Your task to perform on an android device: Clear the shopping cart on target. Search for "razer naga" on target, select the first entry, add it to the cart, then select checkout. Image 0: 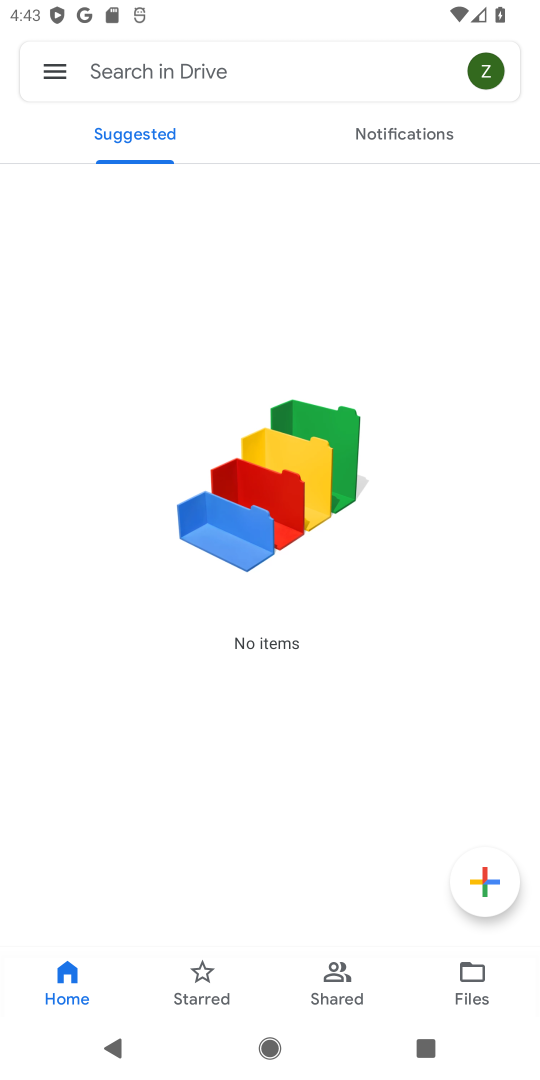
Step 0: press home button
Your task to perform on an android device: Clear the shopping cart on target. Search for "razer naga" on target, select the first entry, add it to the cart, then select checkout. Image 1: 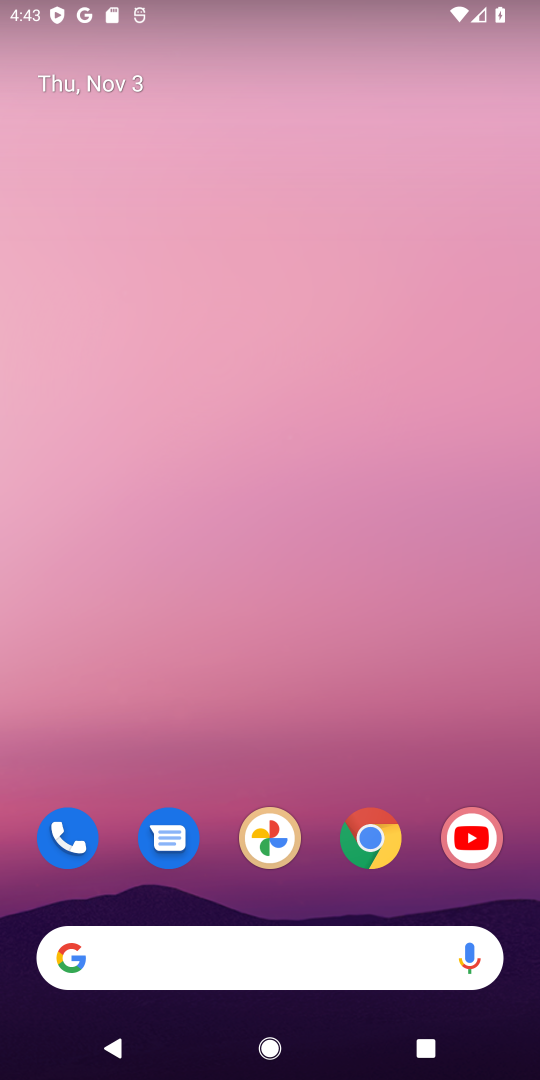
Step 1: click (369, 841)
Your task to perform on an android device: Clear the shopping cart on target. Search for "razer naga" on target, select the first entry, add it to the cart, then select checkout. Image 2: 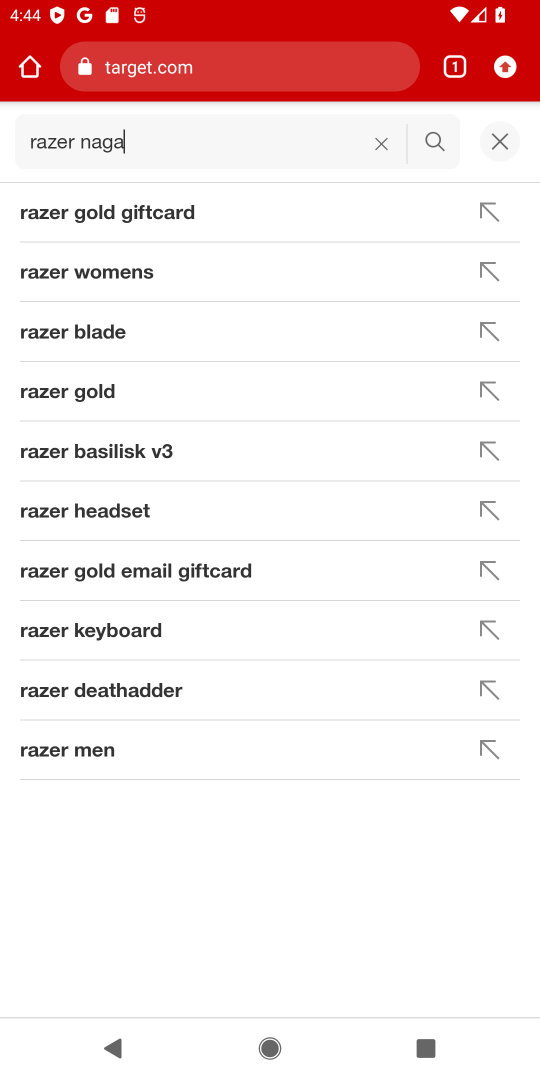
Step 2: task complete